Your task to perform on an android device: Open Chrome and go to settings Image 0: 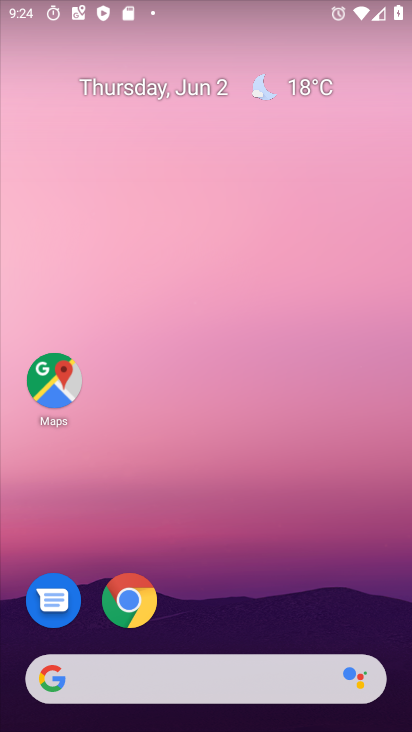
Step 0: drag from (372, 630) to (366, 204)
Your task to perform on an android device: Open Chrome and go to settings Image 1: 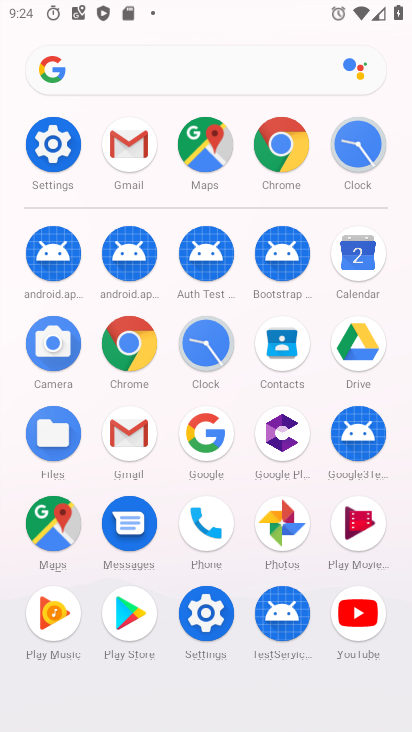
Step 1: click (145, 348)
Your task to perform on an android device: Open Chrome and go to settings Image 2: 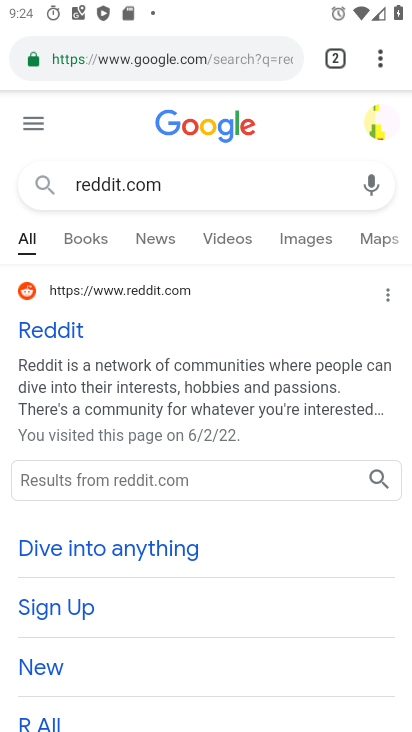
Step 2: click (379, 66)
Your task to perform on an android device: Open Chrome and go to settings Image 3: 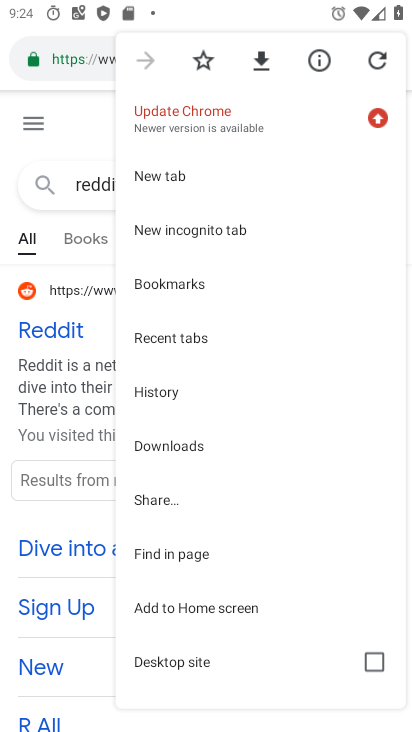
Step 3: drag from (325, 406) to (339, 325)
Your task to perform on an android device: Open Chrome and go to settings Image 4: 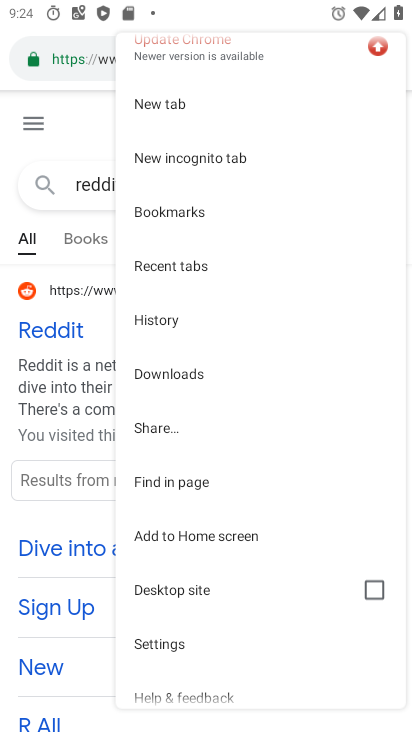
Step 4: drag from (330, 471) to (337, 362)
Your task to perform on an android device: Open Chrome and go to settings Image 5: 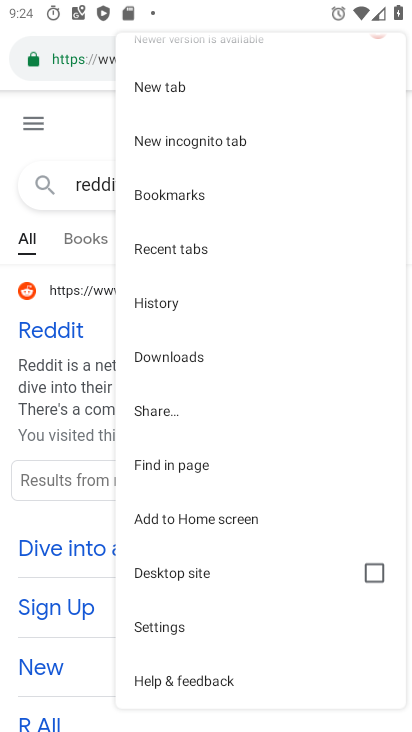
Step 5: click (233, 623)
Your task to perform on an android device: Open Chrome and go to settings Image 6: 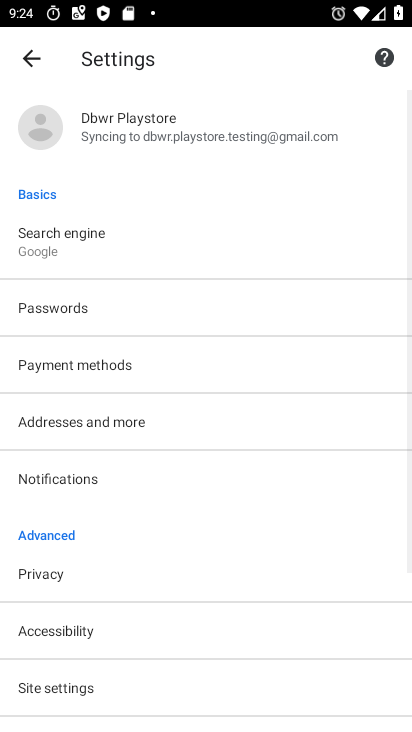
Step 6: task complete